Your task to perform on an android device: Open eBay Image 0: 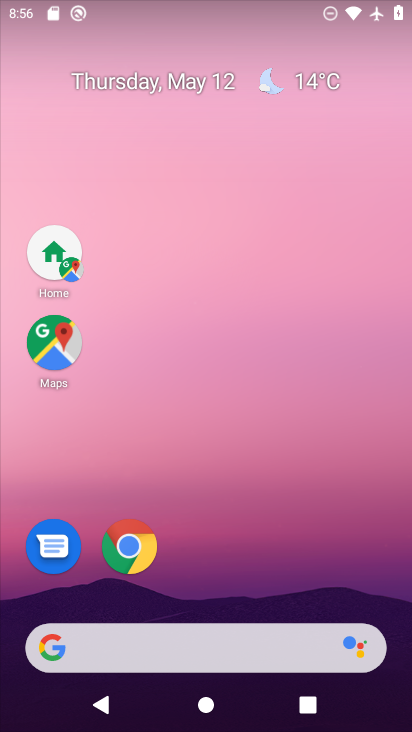
Step 0: click (126, 561)
Your task to perform on an android device: Open eBay Image 1: 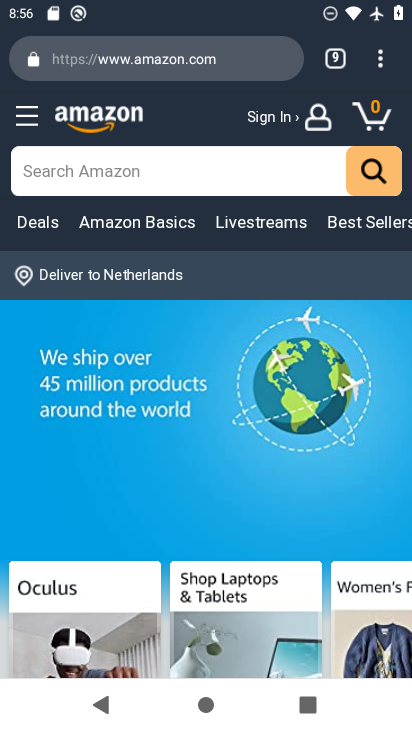
Step 1: drag from (380, 59) to (264, 107)
Your task to perform on an android device: Open eBay Image 2: 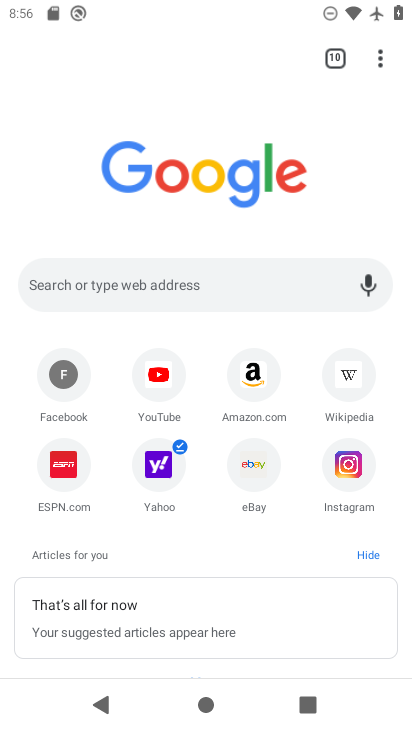
Step 2: click (251, 474)
Your task to perform on an android device: Open eBay Image 3: 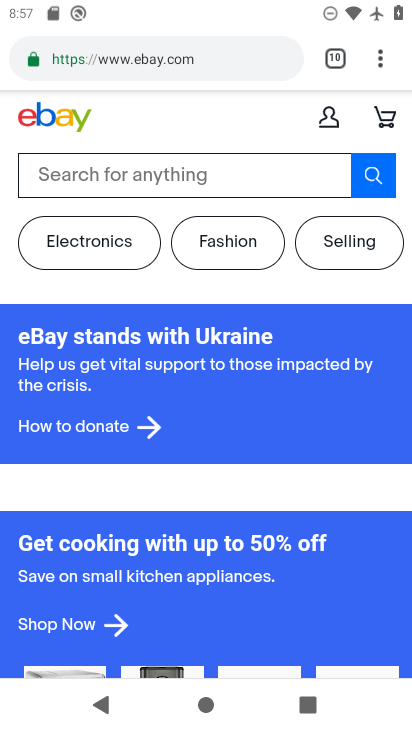
Step 3: task complete